Your task to perform on an android device: Open Yahoo.com Image 0: 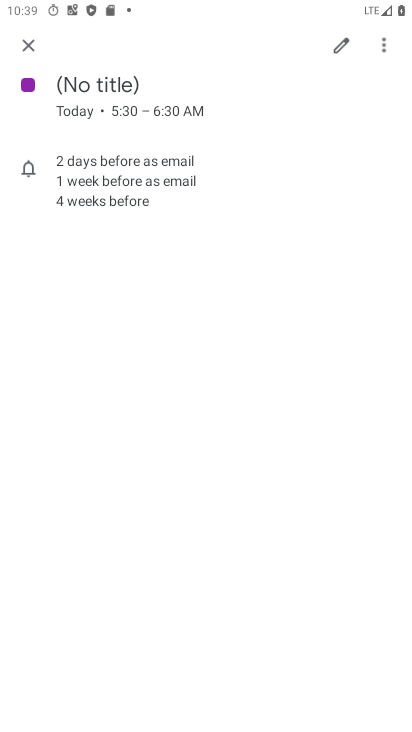
Step 0: press home button
Your task to perform on an android device: Open Yahoo.com Image 1: 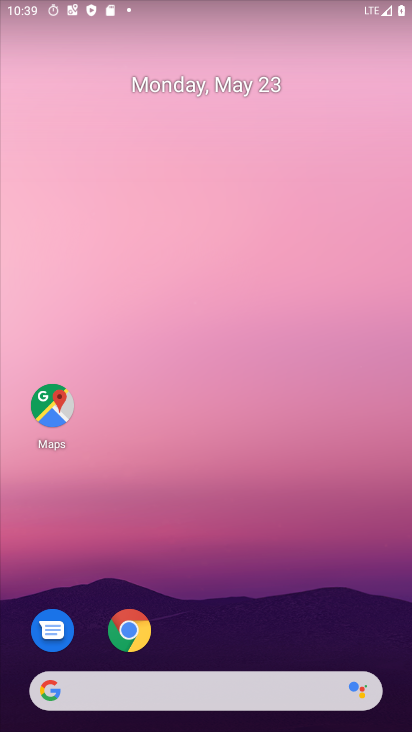
Step 1: click (221, 590)
Your task to perform on an android device: Open Yahoo.com Image 2: 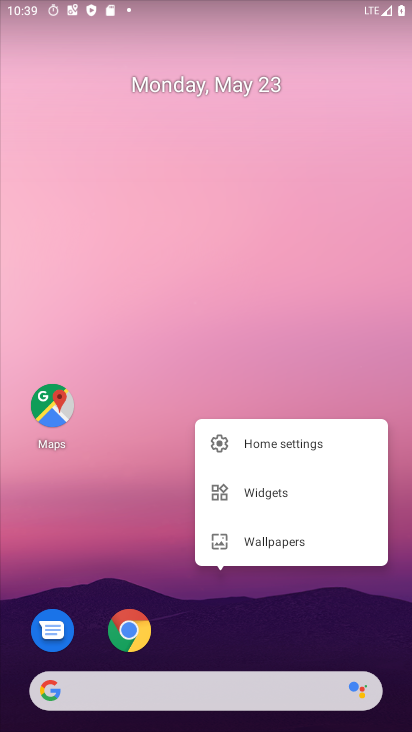
Step 2: click (135, 630)
Your task to perform on an android device: Open Yahoo.com Image 3: 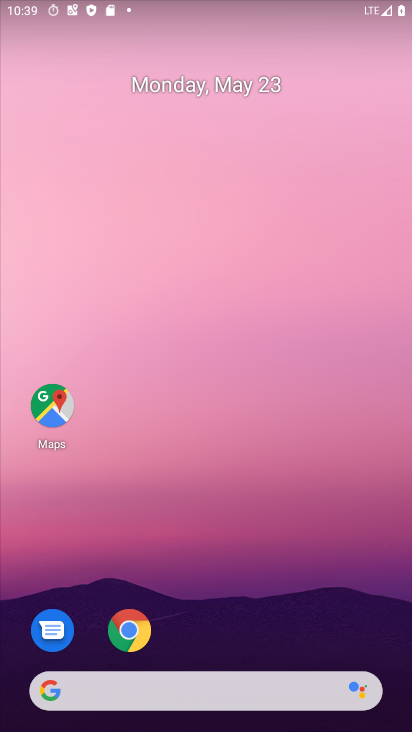
Step 3: click (135, 630)
Your task to perform on an android device: Open Yahoo.com Image 4: 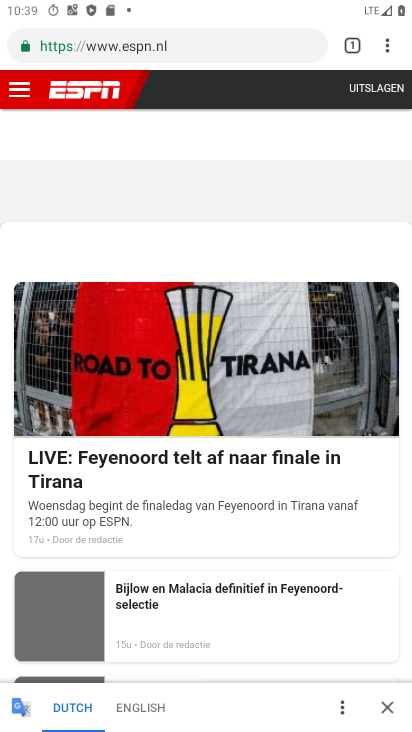
Step 4: click (125, 48)
Your task to perform on an android device: Open Yahoo.com Image 5: 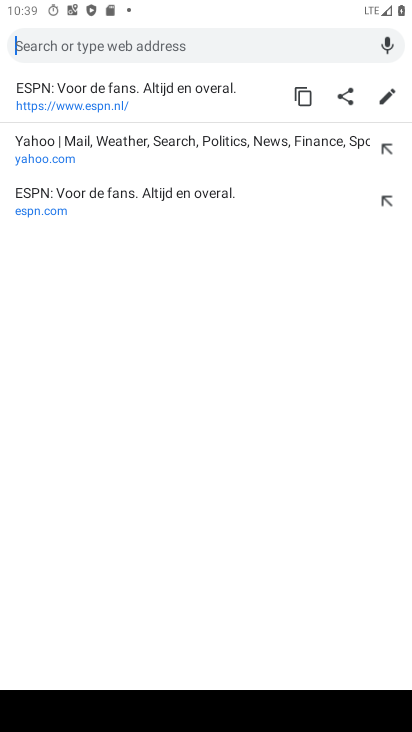
Step 5: click (48, 150)
Your task to perform on an android device: Open Yahoo.com Image 6: 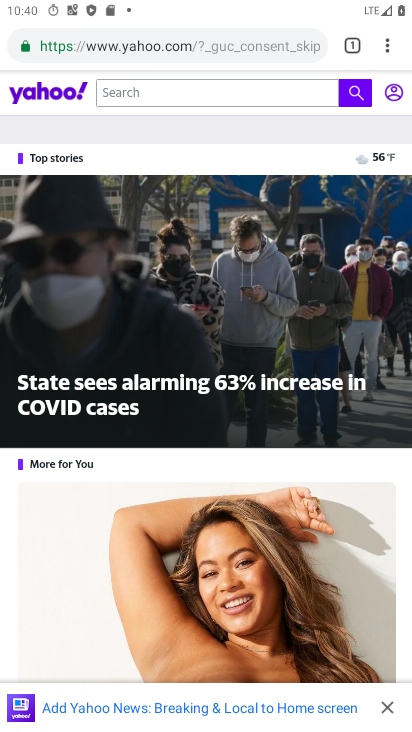
Step 6: task complete